Your task to perform on an android device: Is it going to rain today? Image 0: 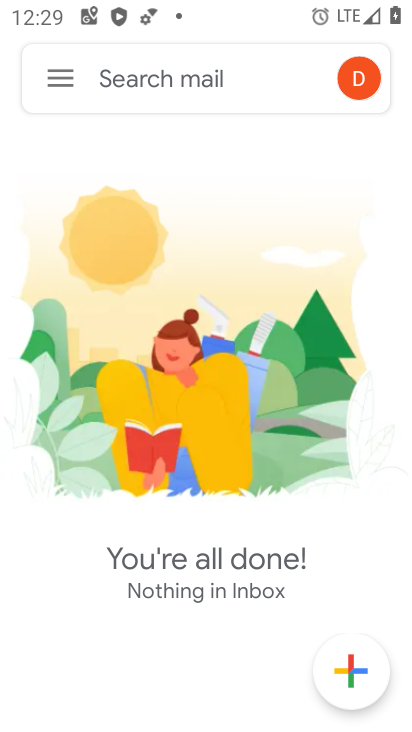
Step 0: press home button
Your task to perform on an android device: Is it going to rain today? Image 1: 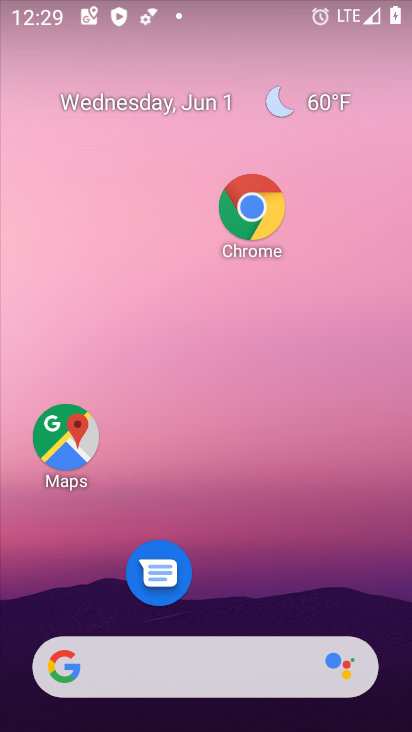
Step 1: drag from (210, 593) to (185, 143)
Your task to perform on an android device: Is it going to rain today? Image 2: 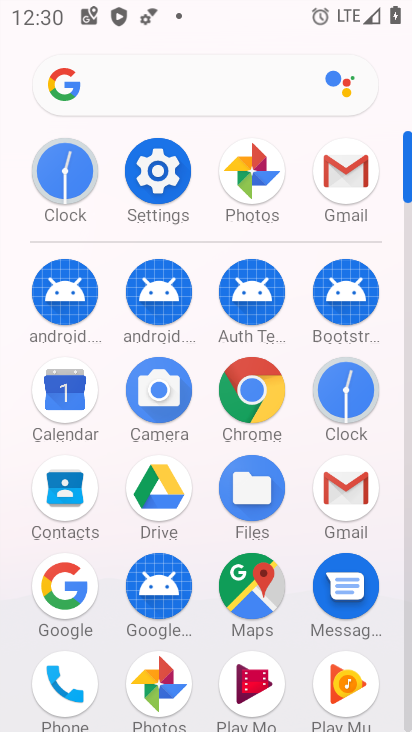
Step 2: click (51, 591)
Your task to perform on an android device: Is it going to rain today? Image 3: 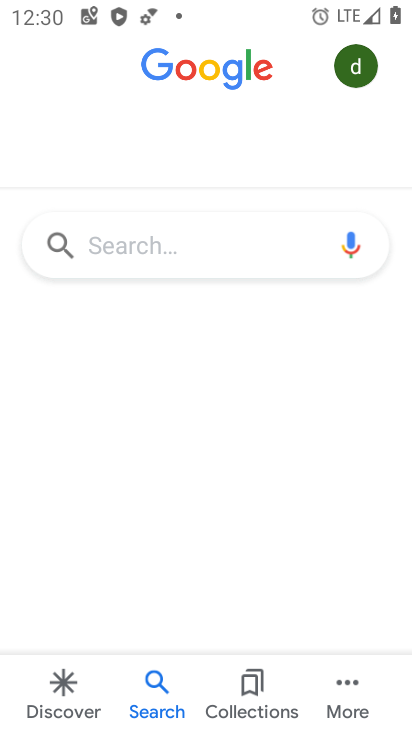
Step 3: click (136, 257)
Your task to perform on an android device: Is it going to rain today? Image 4: 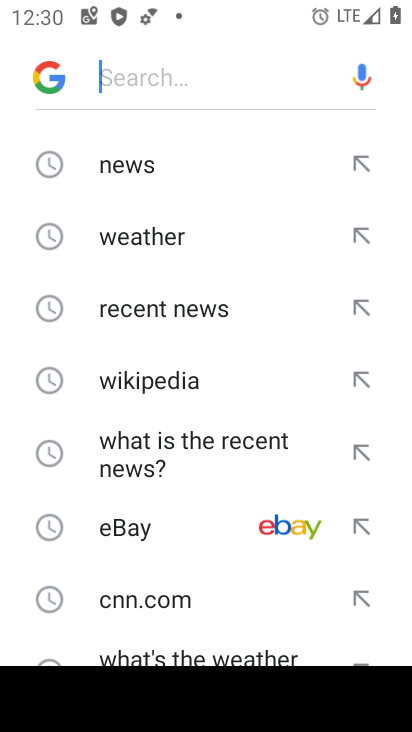
Step 4: click (159, 233)
Your task to perform on an android device: Is it going to rain today? Image 5: 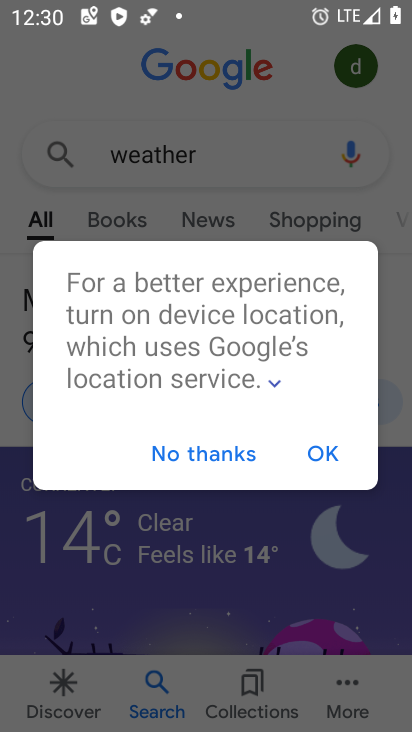
Step 5: click (318, 448)
Your task to perform on an android device: Is it going to rain today? Image 6: 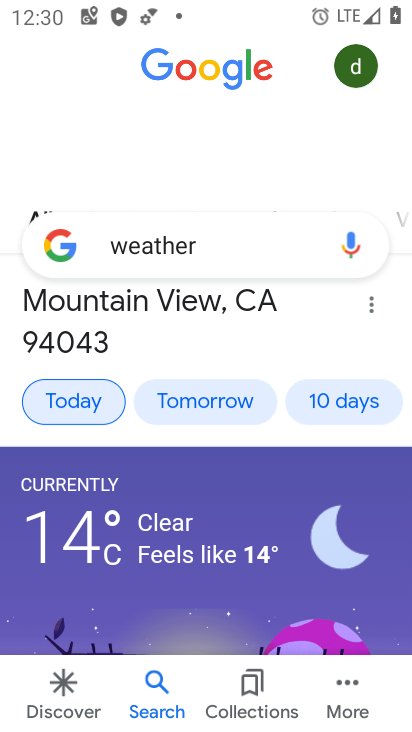
Step 6: task complete